Your task to perform on an android device: open chrome and create a bookmark for the current page Image 0: 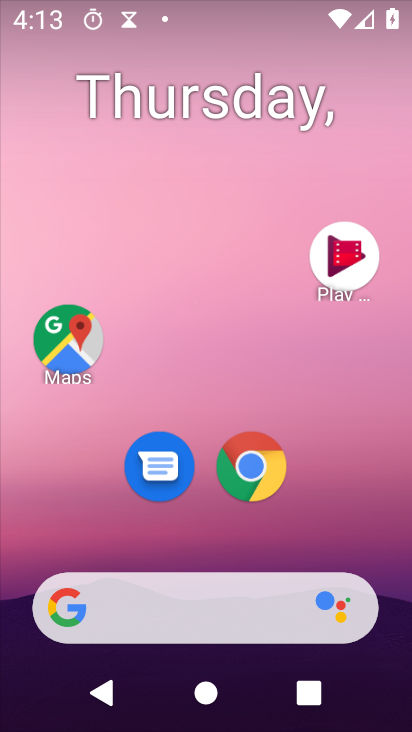
Step 0: click (259, 458)
Your task to perform on an android device: open chrome and create a bookmark for the current page Image 1: 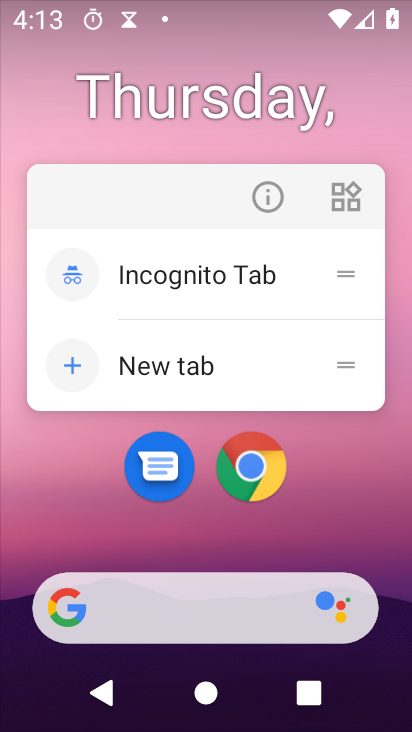
Step 1: click (367, 483)
Your task to perform on an android device: open chrome and create a bookmark for the current page Image 2: 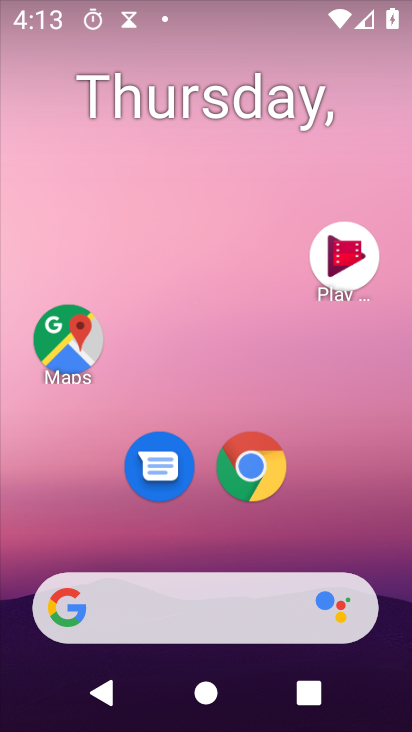
Step 2: drag from (297, 612) to (226, 5)
Your task to perform on an android device: open chrome and create a bookmark for the current page Image 3: 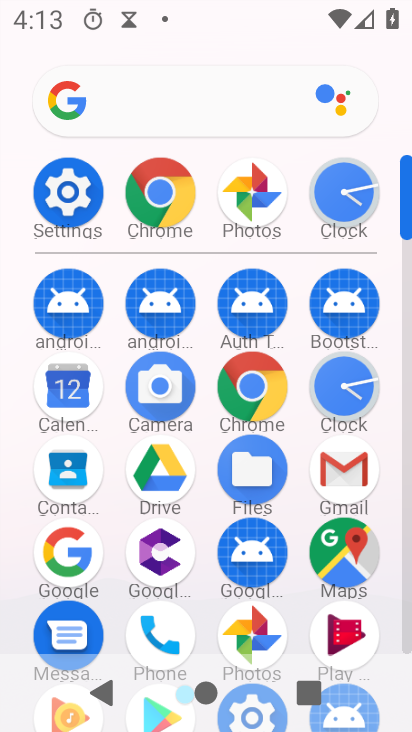
Step 3: click (248, 393)
Your task to perform on an android device: open chrome and create a bookmark for the current page Image 4: 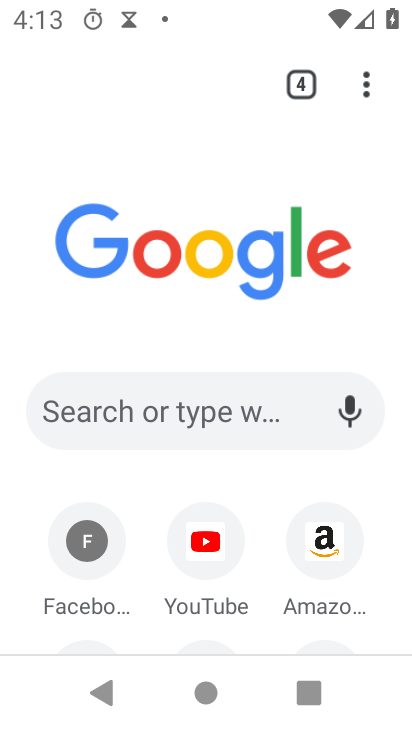
Step 4: click (378, 75)
Your task to perform on an android device: open chrome and create a bookmark for the current page Image 5: 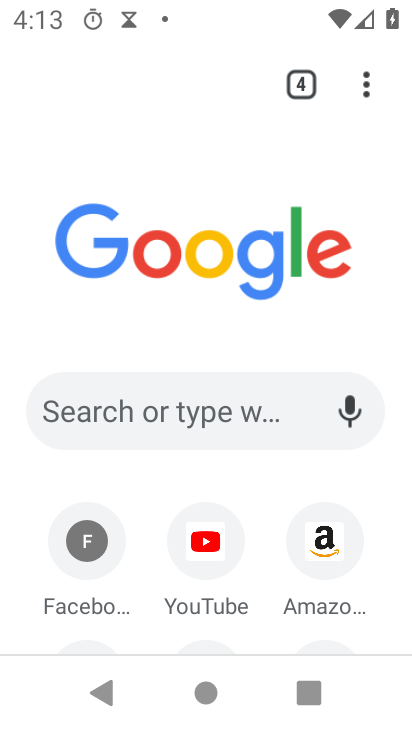
Step 5: drag from (359, 86) to (199, 532)
Your task to perform on an android device: open chrome and create a bookmark for the current page Image 6: 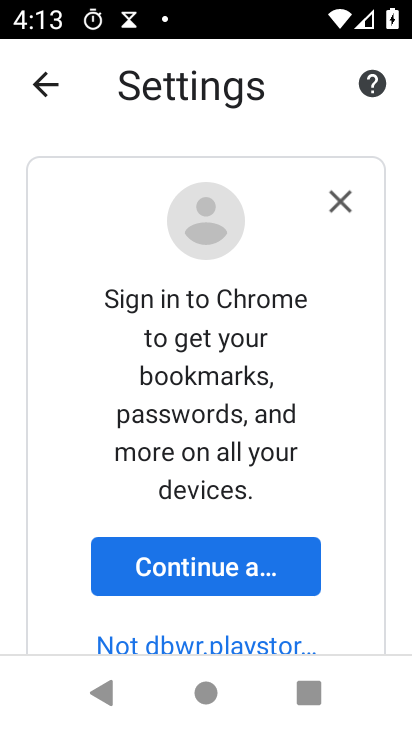
Step 6: click (49, 87)
Your task to perform on an android device: open chrome and create a bookmark for the current page Image 7: 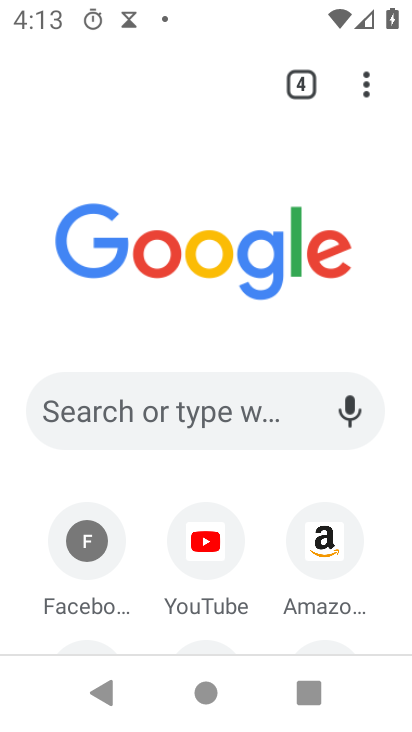
Step 7: task complete